Your task to perform on an android device: Open Yahoo.com Image 0: 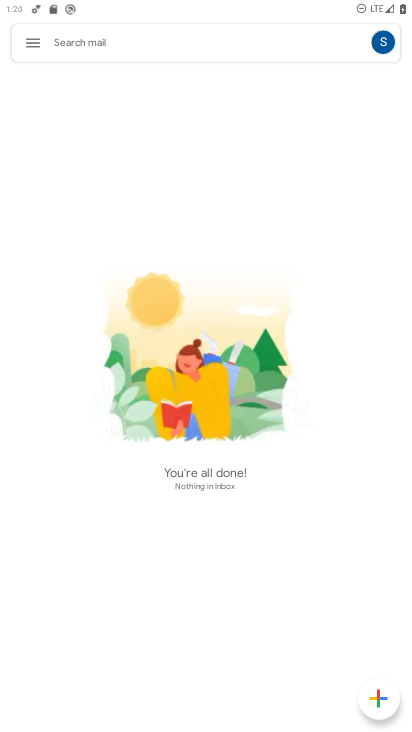
Step 0: press home button
Your task to perform on an android device: Open Yahoo.com Image 1: 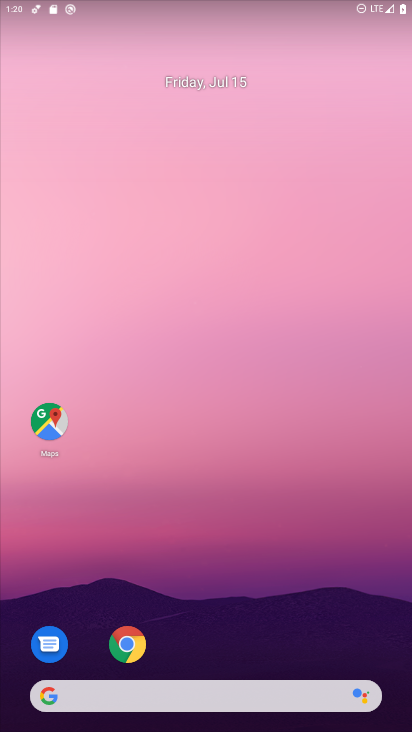
Step 1: click (109, 653)
Your task to perform on an android device: Open Yahoo.com Image 2: 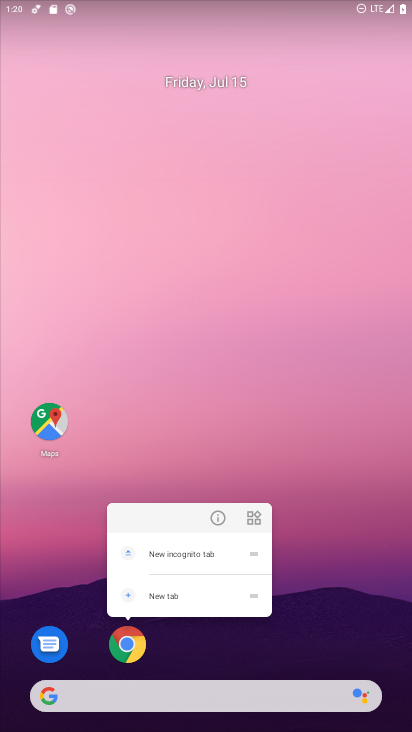
Step 2: click (130, 637)
Your task to perform on an android device: Open Yahoo.com Image 3: 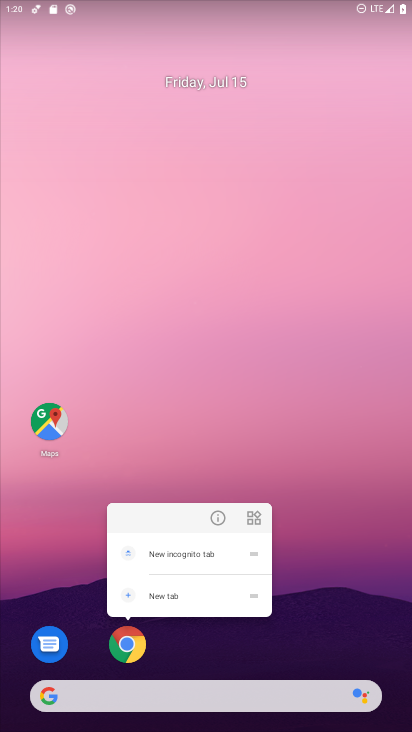
Step 3: click (124, 650)
Your task to perform on an android device: Open Yahoo.com Image 4: 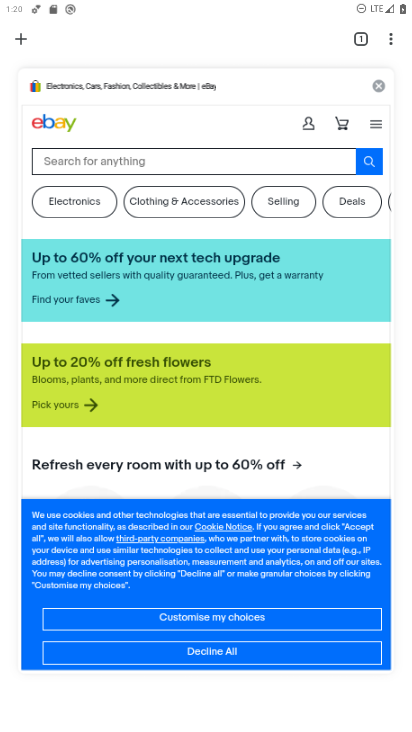
Step 4: click (358, 37)
Your task to perform on an android device: Open Yahoo.com Image 5: 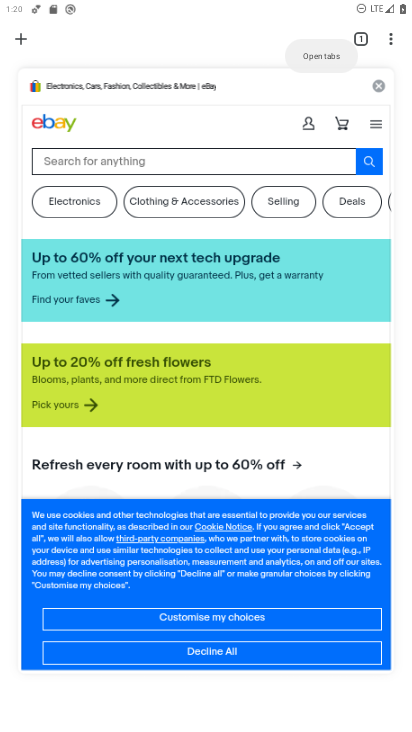
Step 5: click (12, 35)
Your task to perform on an android device: Open Yahoo.com Image 6: 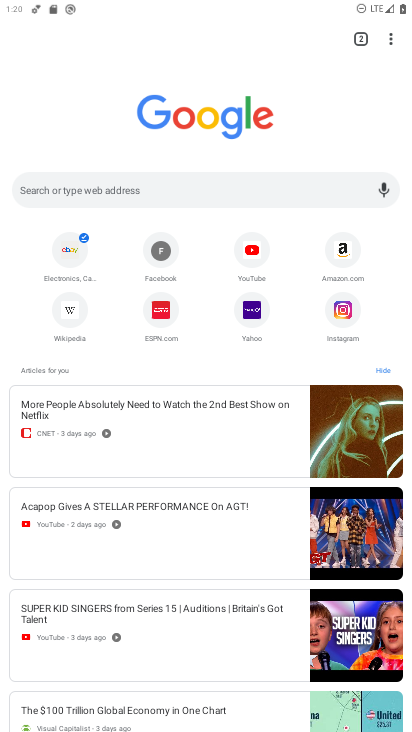
Step 6: click (247, 313)
Your task to perform on an android device: Open Yahoo.com Image 7: 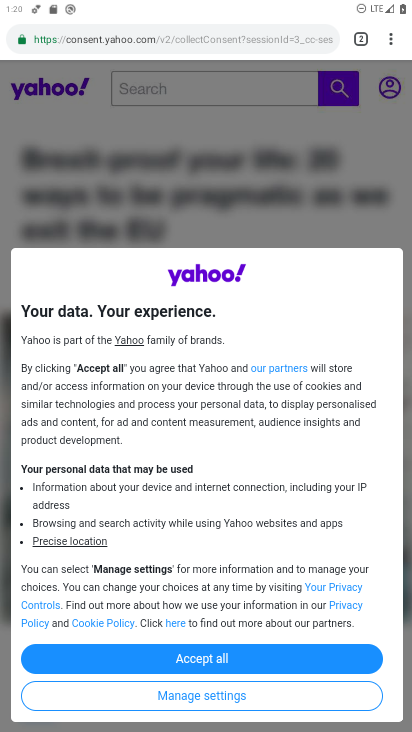
Step 7: task complete